Your task to perform on an android device: turn on airplane mode Image 0: 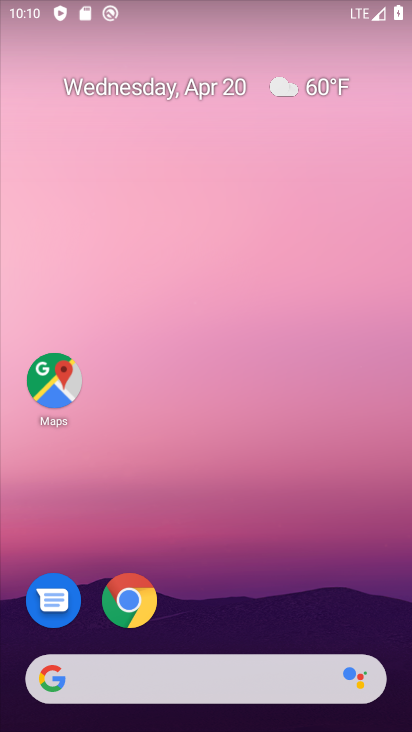
Step 0: drag from (262, 7) to (203, 548)
Your task to perform on an android device: turn on airplane mode Image 1: 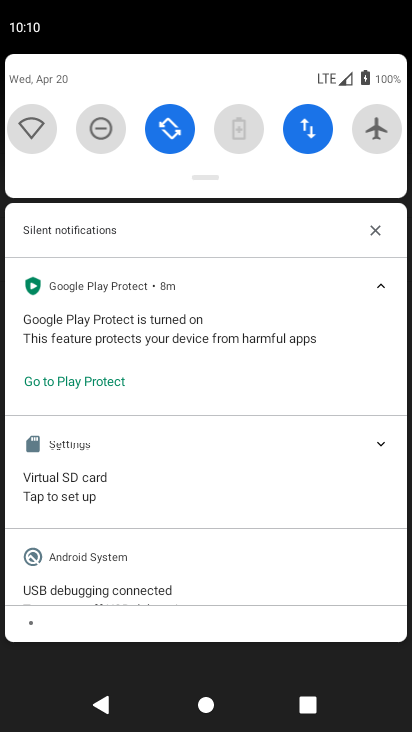
Step 1: click (370, 132)
Your task to perform on an android device: turn on airplane mode Image 2: 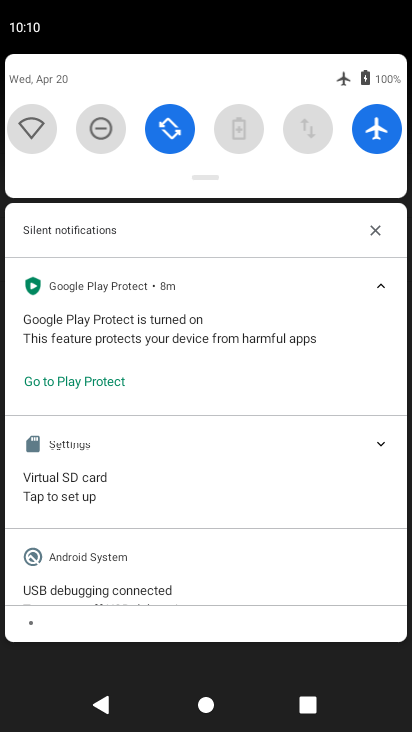
Step 2: task complete